Your task to perform on an android device: read, delete, or share a saved page in the chrome app Image 0: 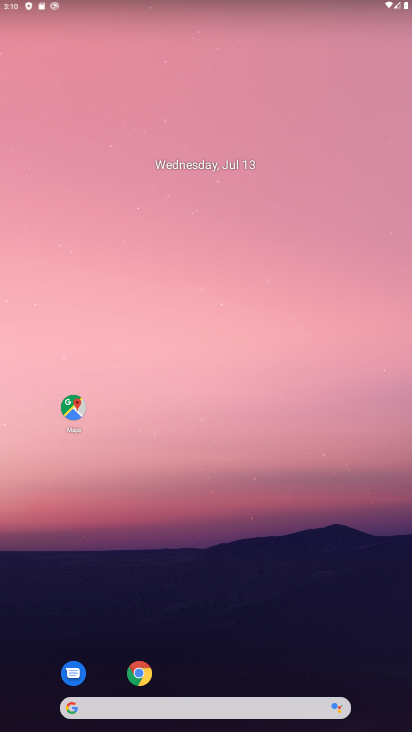
Step 0: click (143, 673)
Your task to perform on an android device: read, delete, or share a saved page in the chrome app Image 1: 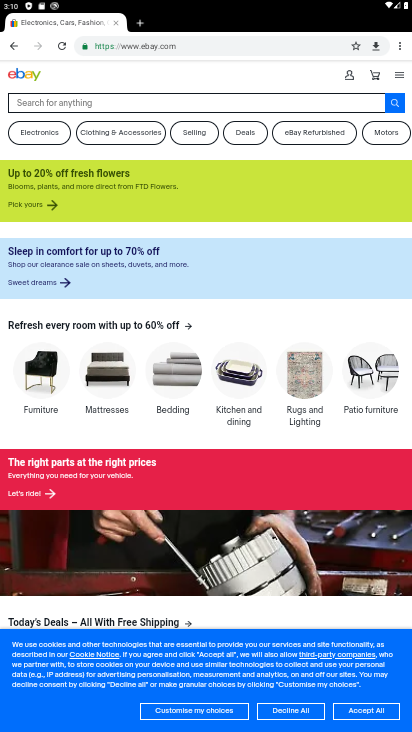
Step 1: click (400, 50)
Your task to perform on an android device: read, delete, or share a saved page in the chrome app Image 2: 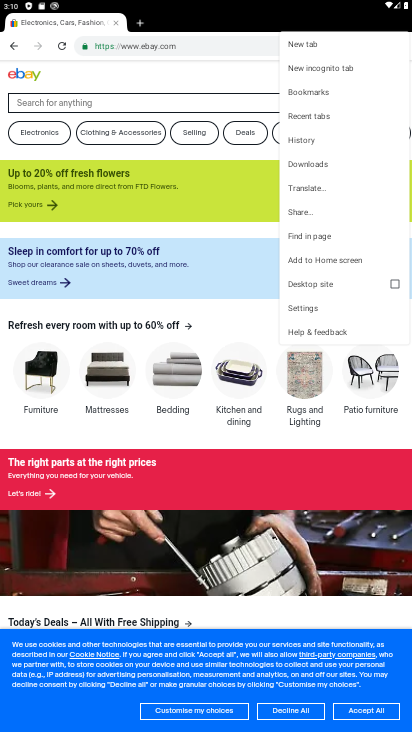
Step 2: click (312, 166)
Your task to perform on an android device: read, delete, or share a saved page in the chrome app Image 3: 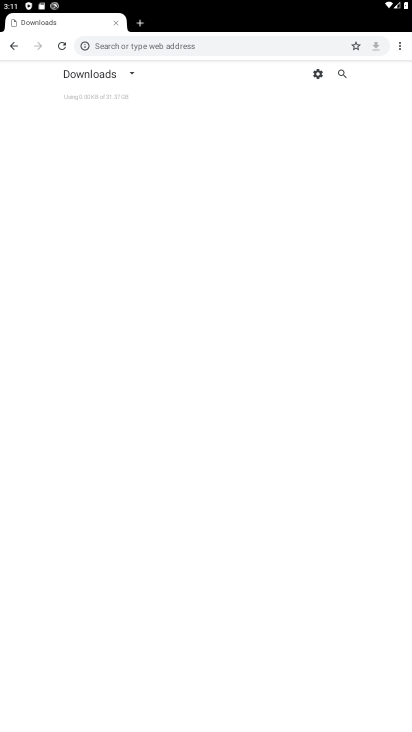
Step 3: task complete